Your task to perform on an android device: turn on improve location accuracy Image 0: 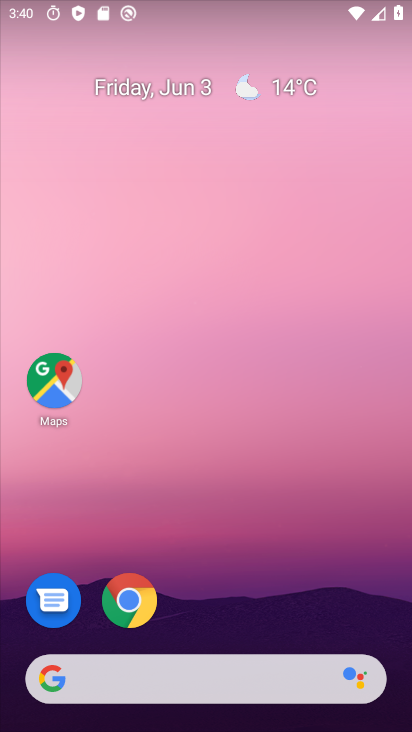
Step 0: drag from (275, 105) to (275, 13)
Your task to perform on an android device: turn on improve location accuracy Image 1: 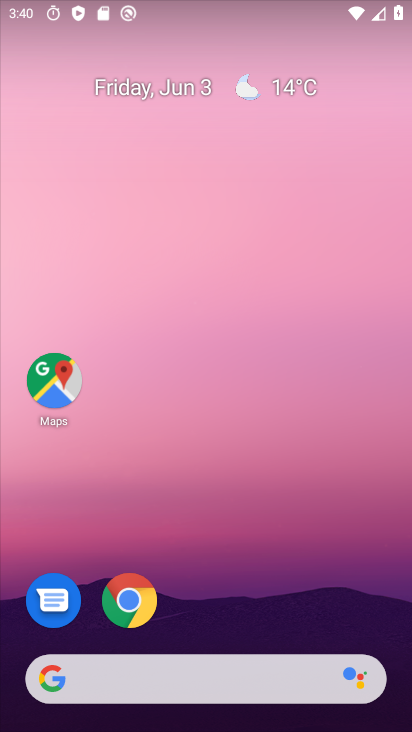
Step 1: drag from (187, 562) to (150, 37)
Your task to perform on an android device: turn on improve location accuracy Image 2: 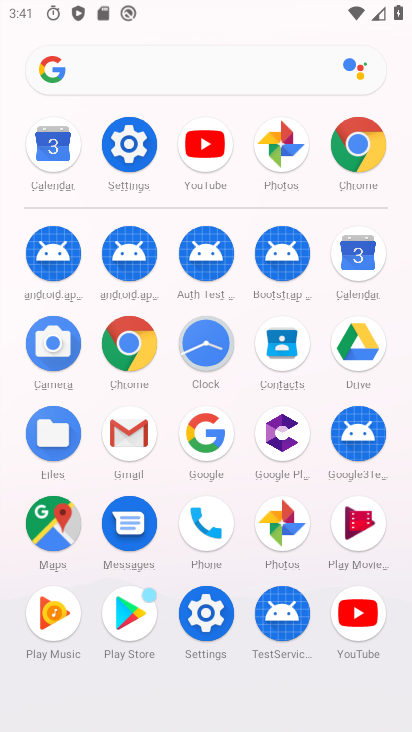
Step 2: drag from (13, 582) to (24, 156)
Your task to perform on an android device: turn on improve location accuracy Image 3: 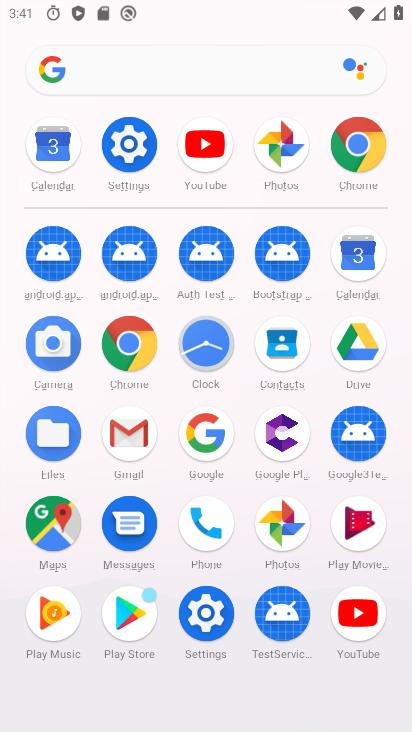
Step 3: click (210, 612)
Your task to perform on an android device: turn on improve location accuracy Image 4: 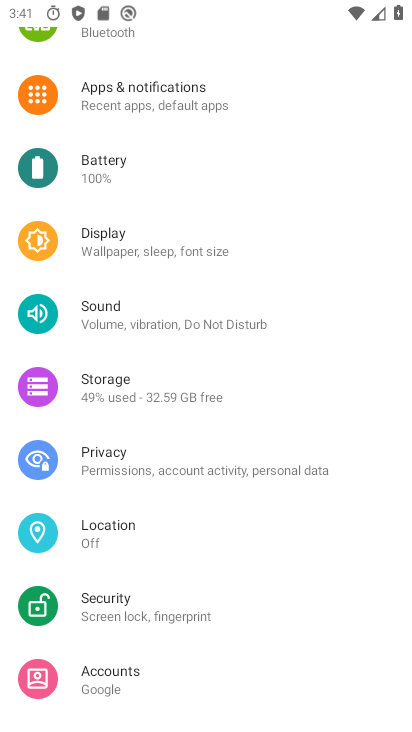
Step 4: click (116, 555)
Your task to perform on an android device: turn on improve location accuracy Image 5: 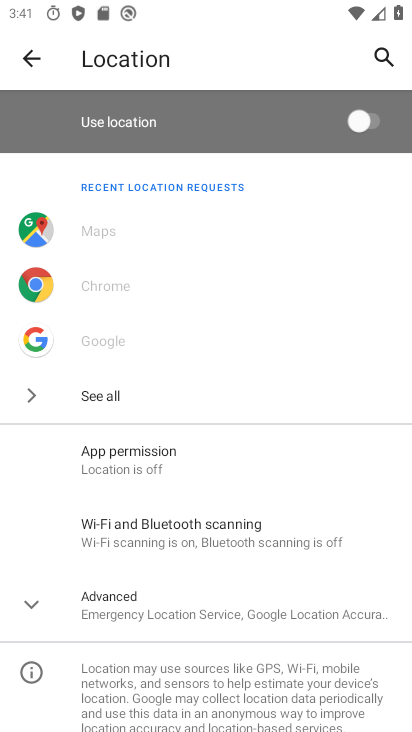
Step 5: drag from (236, 425) to (228, 125)
Your task to perform on an android device: turn on improve location accuracy Image 6: 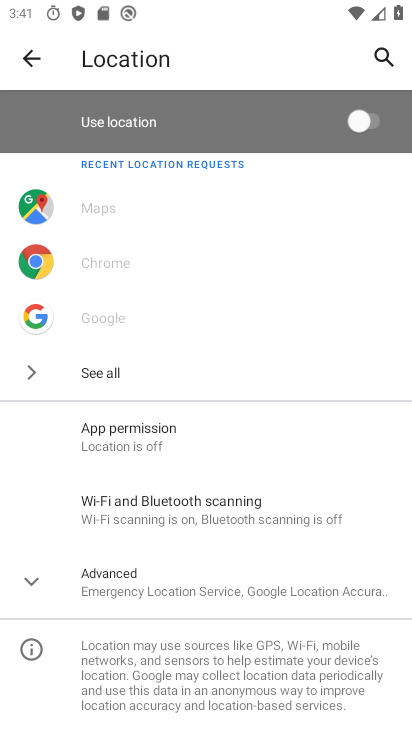
Step 6: click (42, 582)
Your task to perform on an android device: turn on improve location accuracy Image 7: 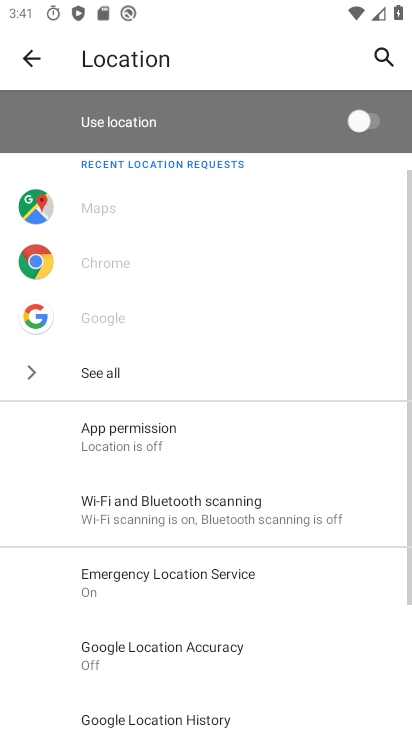
Step 7: drag from (309, 677) to (306, 257)
Your task to perform on an android device: turn on improve location accuracy Image 8: 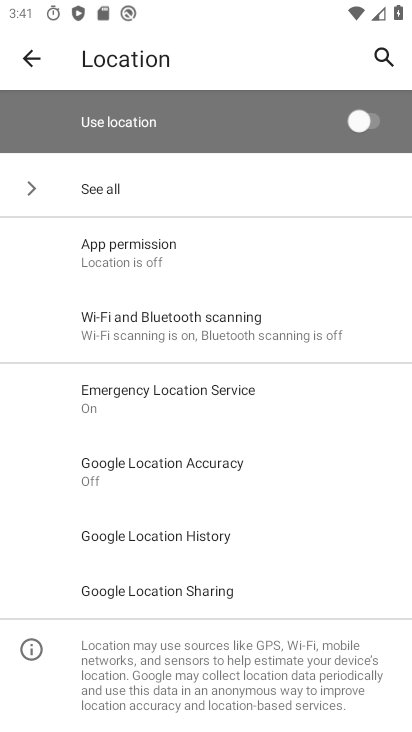
Step 8: click (246, 455)
Your task to perform on an android device: turn on improve location accuracy Image 9: 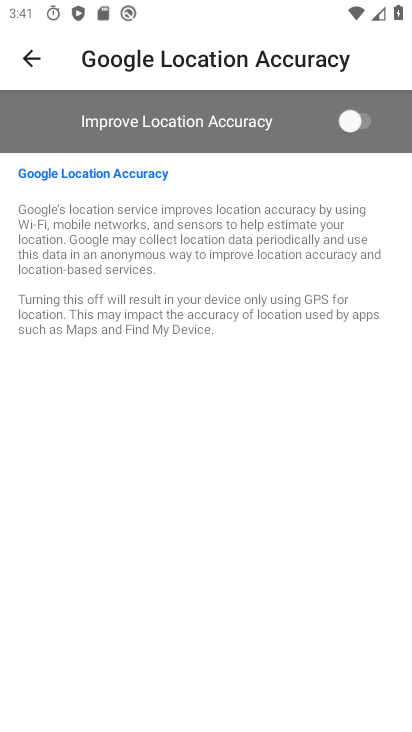
Step 9: click (359, 129)
Your task to perform on an android device: turn on improve location accuracy Image 10: 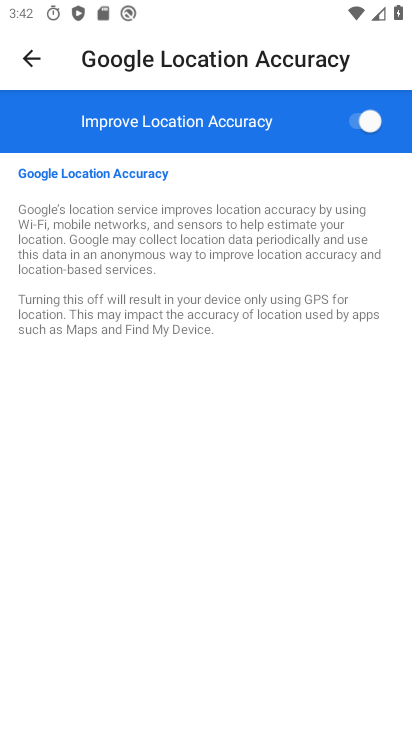
Step 10: task complete